Your task to perform on an android device: Open Wikipedia Image 0: 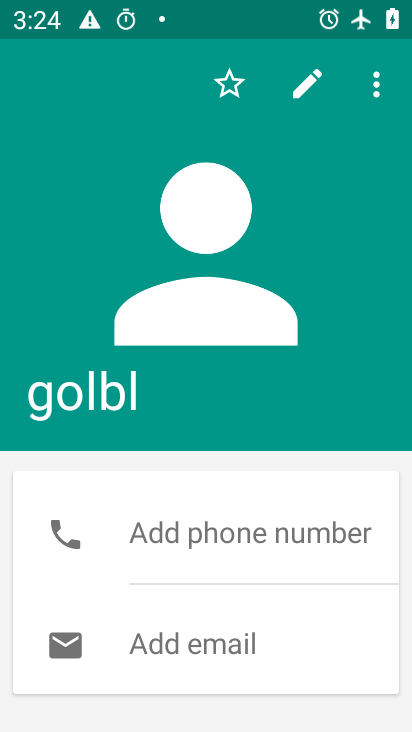
Step 0: press home button
Your task to perform on an android device: Open Wikipedia Image 1: 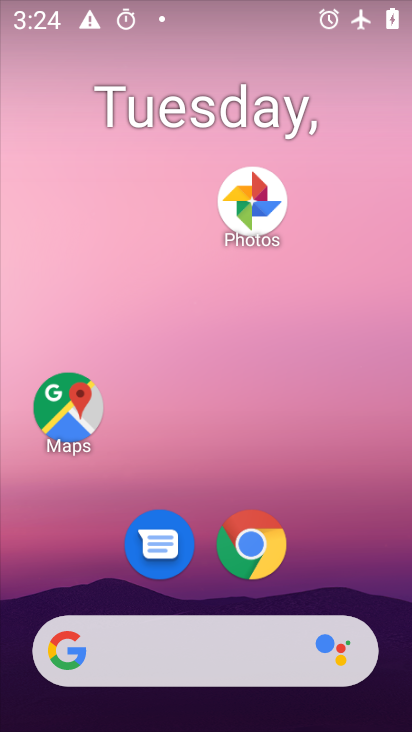
Step 1: drag from (320, 450) to (276, 14)
Your task to perform on an android device: Open Wikipedia Image 2: 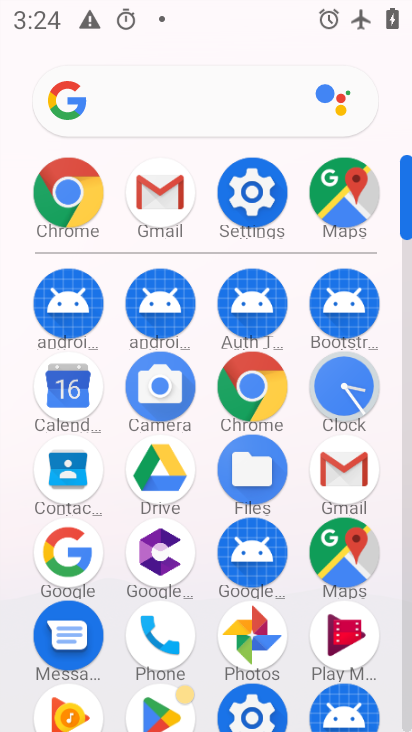
Step 2: click (251, 381)
Your task to perform on an android device: Open Wikipedia Image 3: 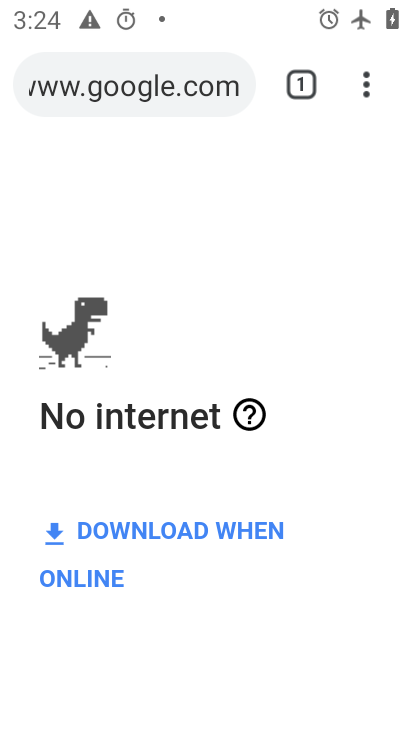
Step 3: click (202, 66)
Your task to perform on an android device: Open Wikipedia Image 4: 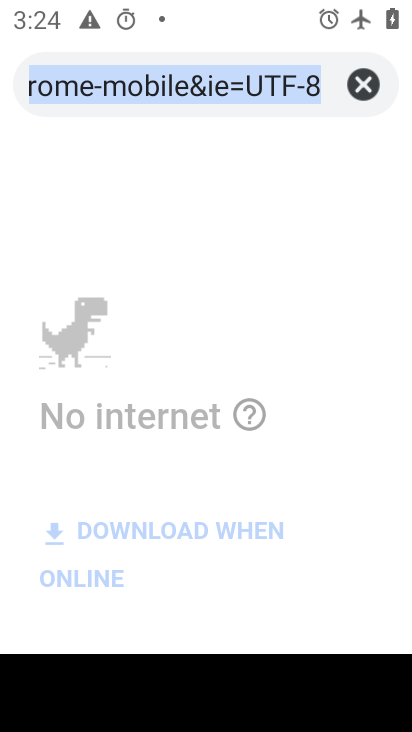
Step 4: type "wikipedia"
Your task to perform on an android device: Open Wikipedia Image 5: 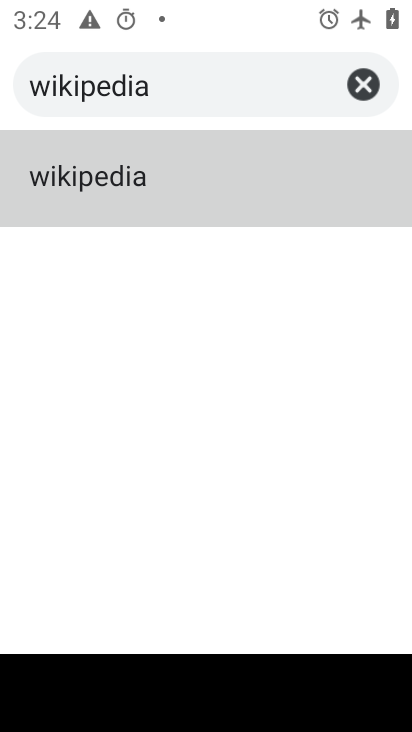
Step 5: click (66, 172)
Your task to perform on an android device: Open Wikipedia Image 6: 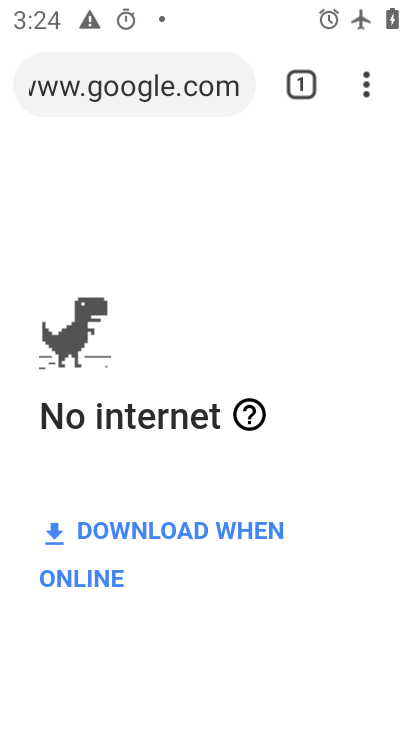
Step 6: task complete